Your task to perform on an android device: choose inbox layout in the gmail app Image 0: 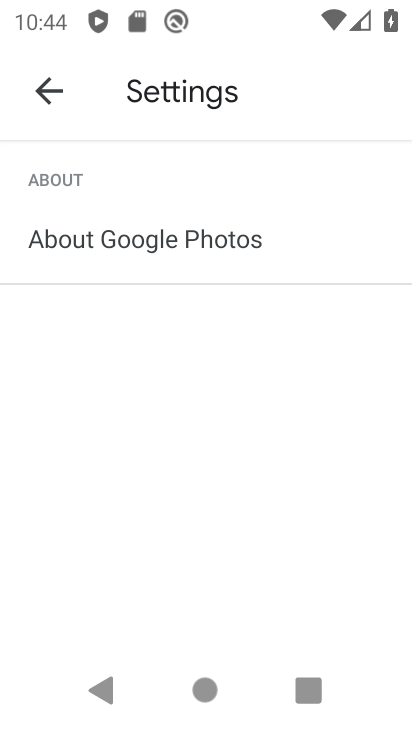
Step 0: press home button
Your task to perform on an android device: choose inbox layout in the gmail app Image 1: 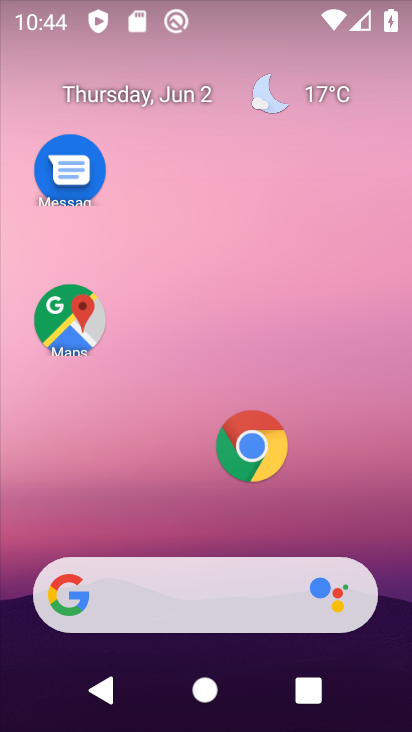
Step 1: drag from (301, 500) to (347, 204)
Your task to perform on an android device: choose inbox layout in the gmail app Image 2: 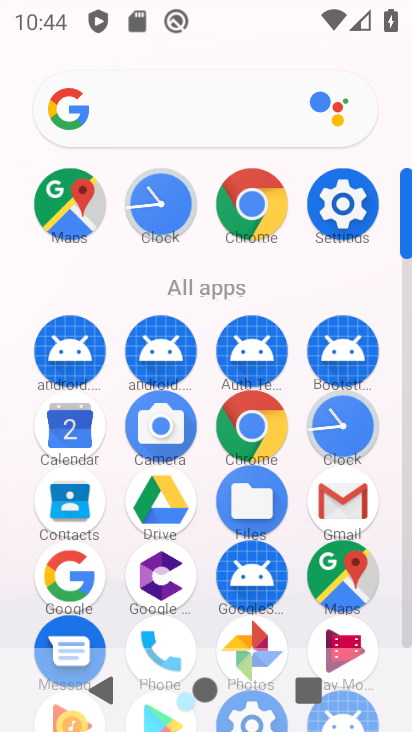
Step 2: click (352, 503)
Your task to perform on an android device: choose inbox layout in the gmail app Image 3: 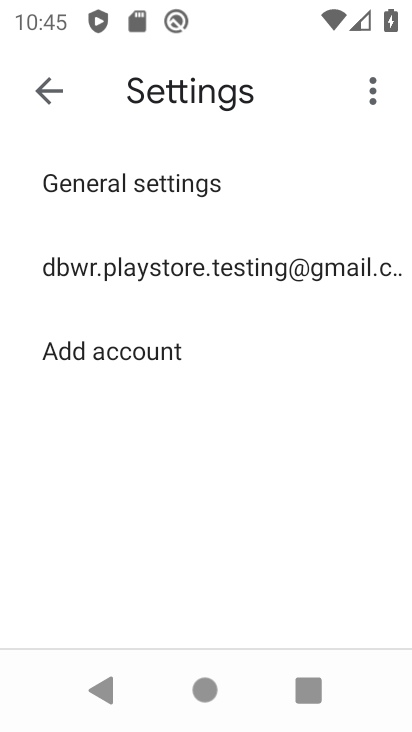
Step 3: click (173, 267)
Your task to perform on an android device: choose inbox layout in the gmail app Image 4: 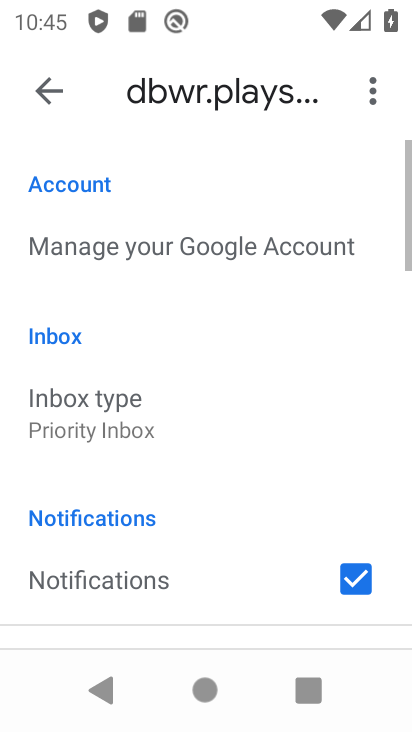
Step 4: click (144, 432)
Your task to perform on an android device: choose inbox layout in the gmail app Image 5: 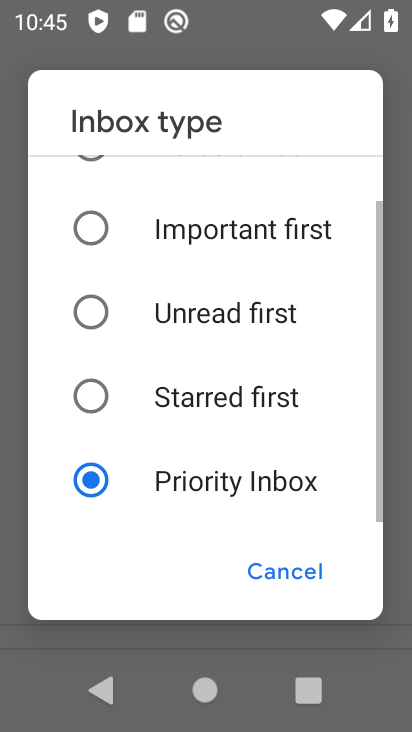
Step 5: click (250, 229)
Your task to perform on an android device: choose inbox layout in the gmail app Image 6: 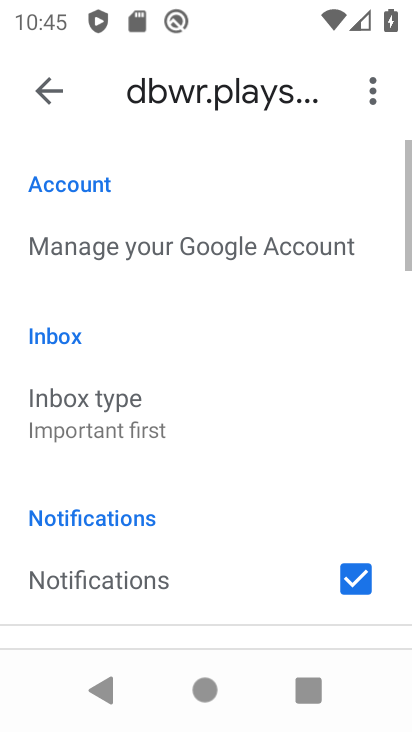
Step 6: task complete